Your task to perform on an android device: change notifications settings Image 0: 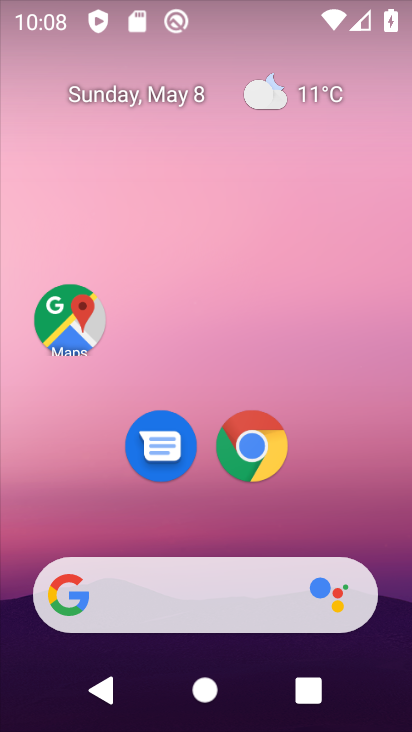
Step 0: drag from (361, 554) to (352, 20)
Your task to perform on an android device: change notifications settings Image 1: 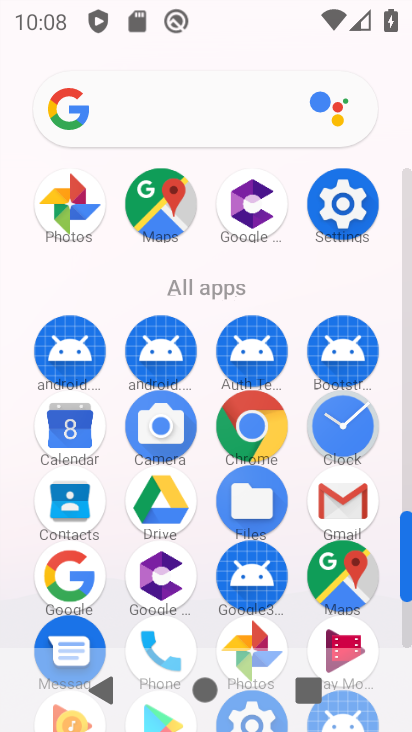
Step 1: click (335, 216)
Your task to perform on an android device: change notifications settings Image 2: 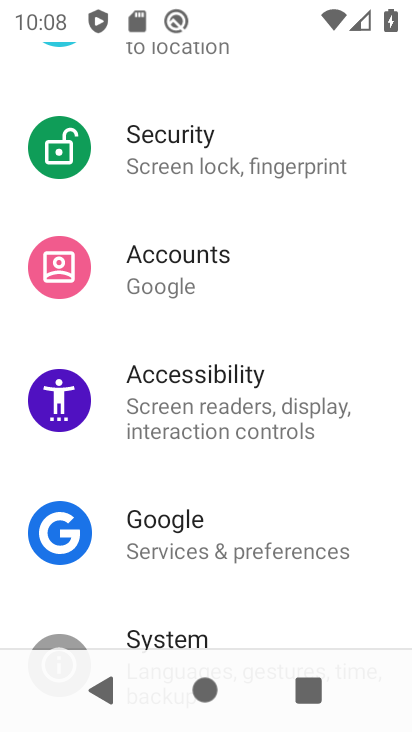
Step 2: drag from (343, 292) to (350, 599)
Your task to perform on an android device: change notifications settings Image 3: 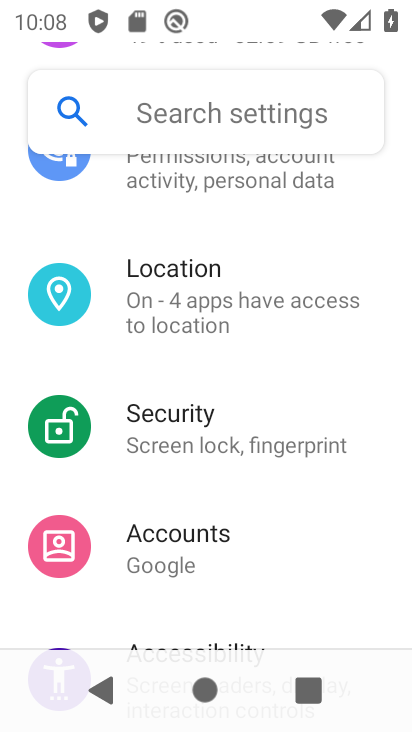
Step 3: drag from (302, 311) to (334, 631)
Your task to perform on an android device: change notifications settings Image 4: 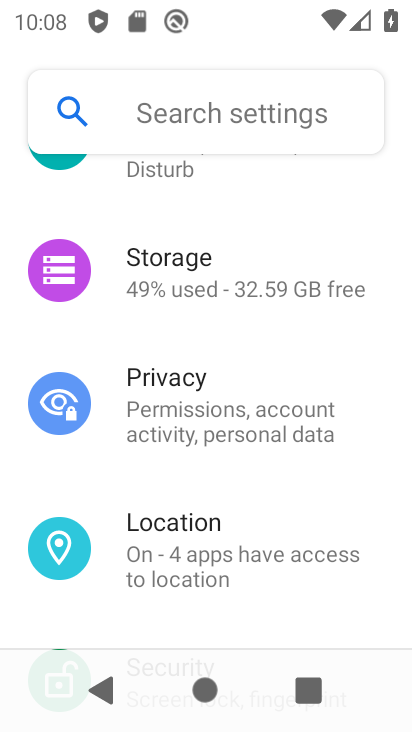
Step 4: drag from (300, 329) to (327, 646)
Your task to perform on an android device: change notifications settings Image 5: 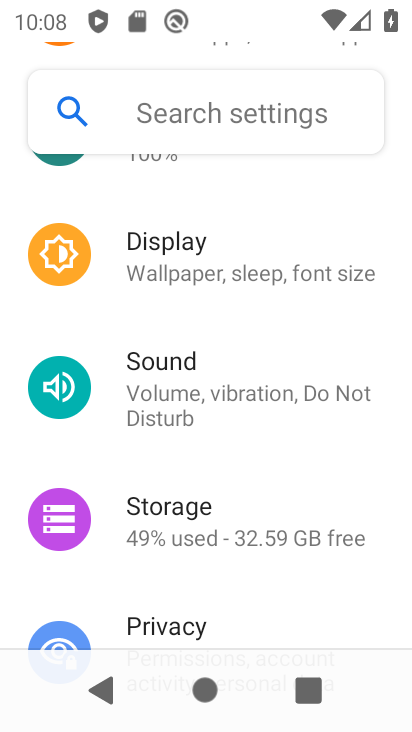
Step 5: drag from (256, 283) to (305, 609)
Your task to perform on an android device: change notifications settings Image 6: 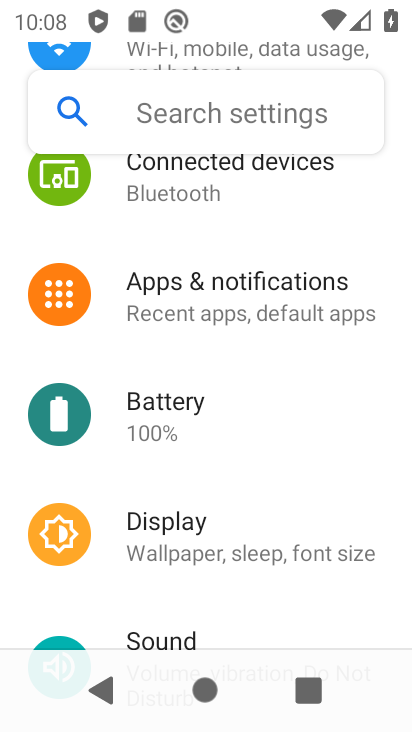
Step 6: click (255, 306)
Your task to perform on an android device: change notifications settings Image 7: 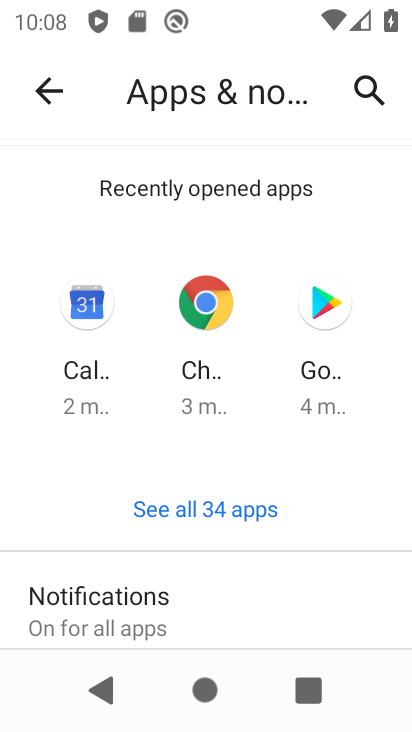
Step 7: drag from (288, 517) to (292, 229)
Your task to perform on an android device: change notifications settings Image 8: 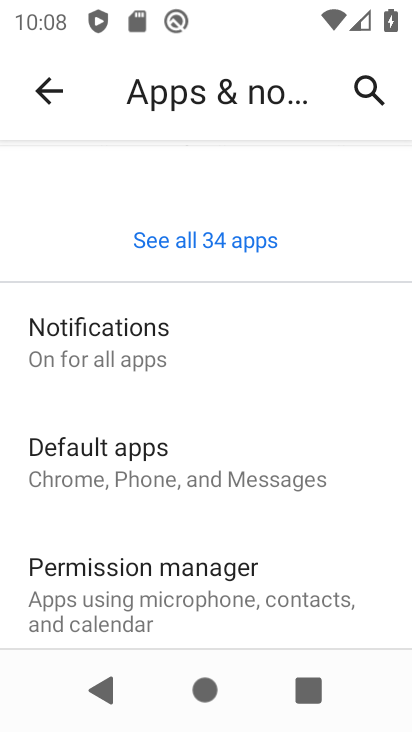
Step 8: click (100, 353)
Your task to perform on an android device: change notifications settings Image 9: 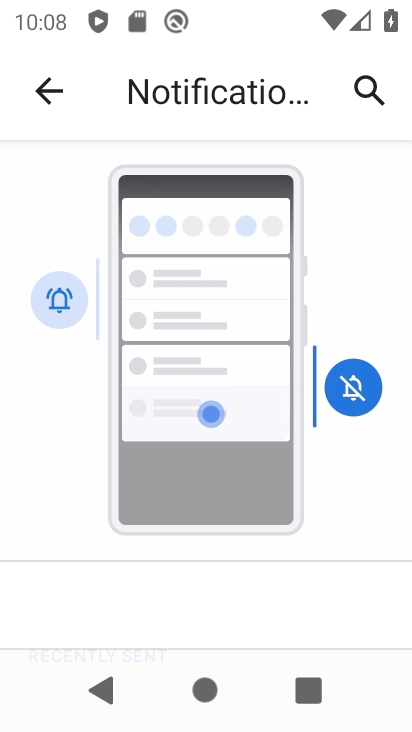
Step 9: drag from (328, 481) to (328, 202)
Your task to perform on an android device: change notifications settings Image 10: 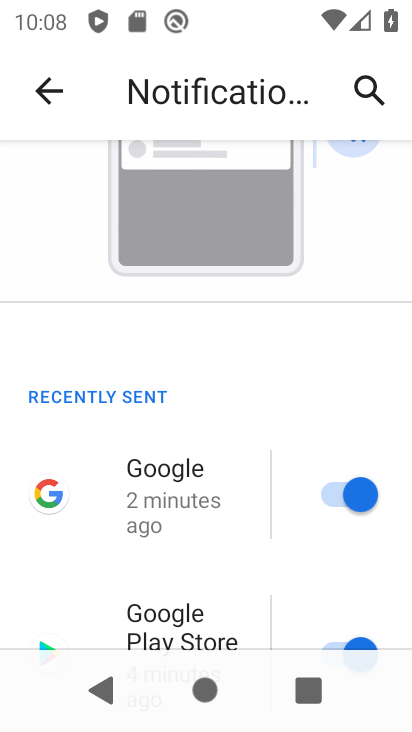
Step 10: drag from (222, 502) to (221, 270)
Your task to perform on an android device: change notifications settings Image 11: 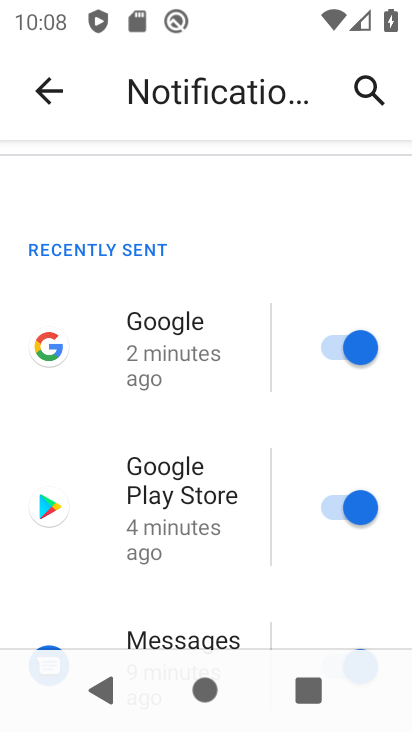
Step 11: drag from (203, 496) to (213, 306)
Your task to perform on an android device: change notifications settings Image 12: 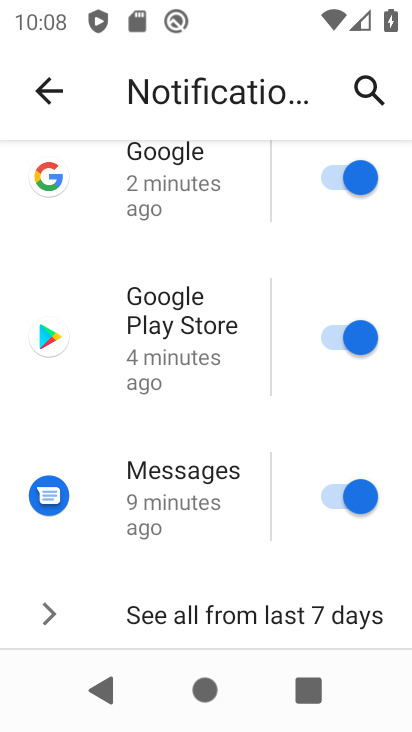
Step 12: drag from (192, 485) to (212, 263)
Your task to perform on an android device: change notifications settings Image 13: 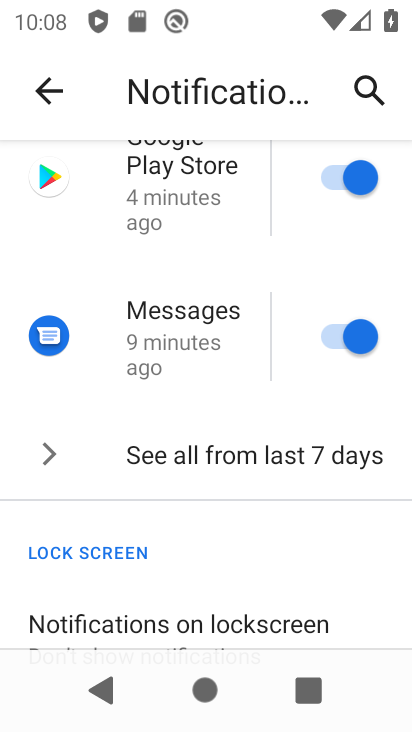
Step 13: click (183, 467)
Your task to perform on an android device: change notifications settings Image 14: 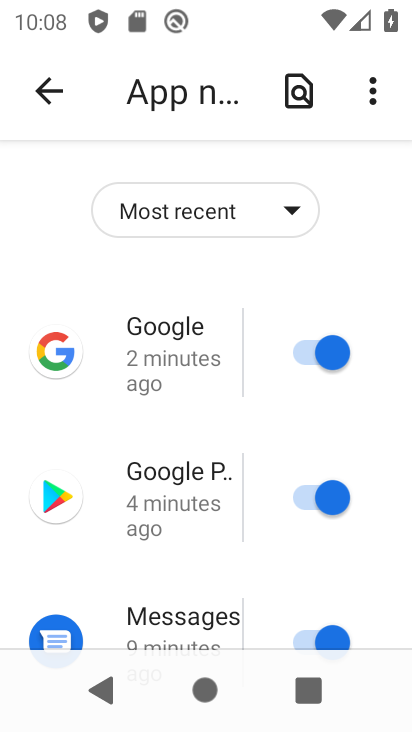
Step 14: drag from (183, 549) to (198, 452)
Your task to perform on an android device: change notifications settings Image 15: 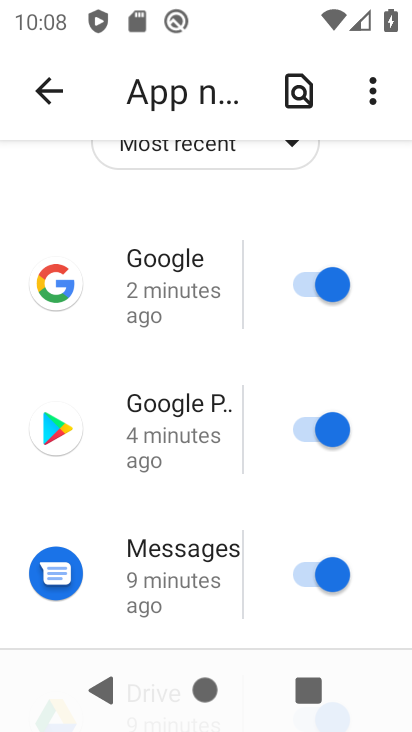
Step 15: drag from (220, 365) to (221, 522)
Your task to perform on an android device: change notifications settings Image 16: 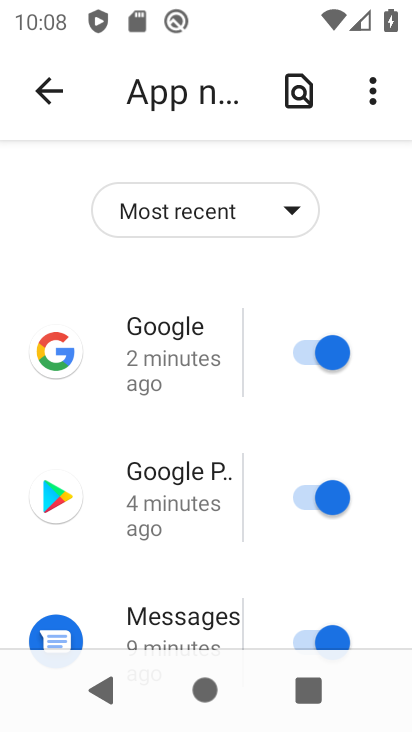
Step 16: click (286, 227)
Your task to perform on an android device: change notifications settings Image 17: 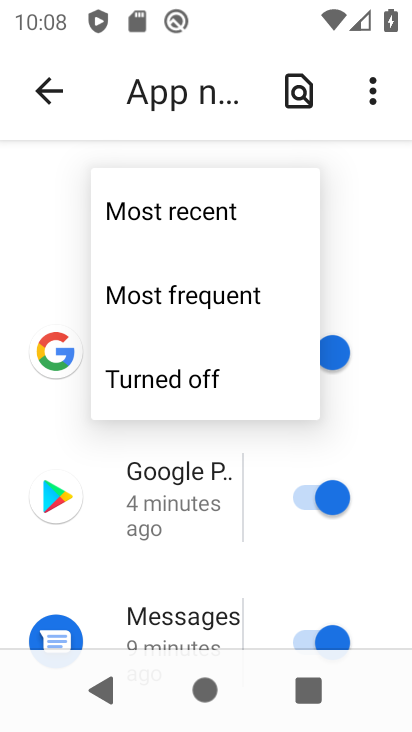
Step 17: click (167, 382)
Your task to perform on an android device: change notifications settings Image 18: 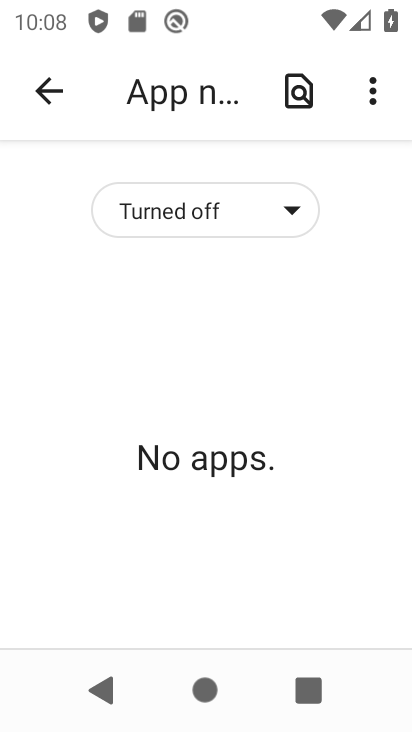
Step 18: task complete